Your task to perform on an android device: all mails in gmail Image 0: 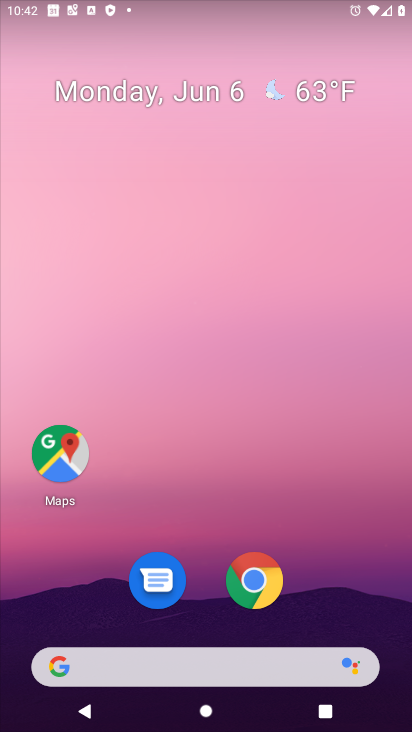
Step 0: drag from (397, 491) to (54, 70)
Your task to perform on an android device: all mails in gmail Image 1: 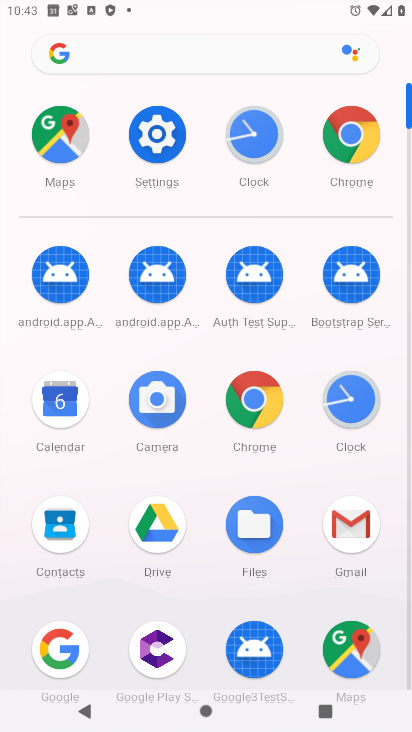
Step 1: click (372, 527)
Your task to perform on an android device: all mails in gmail Image 2: 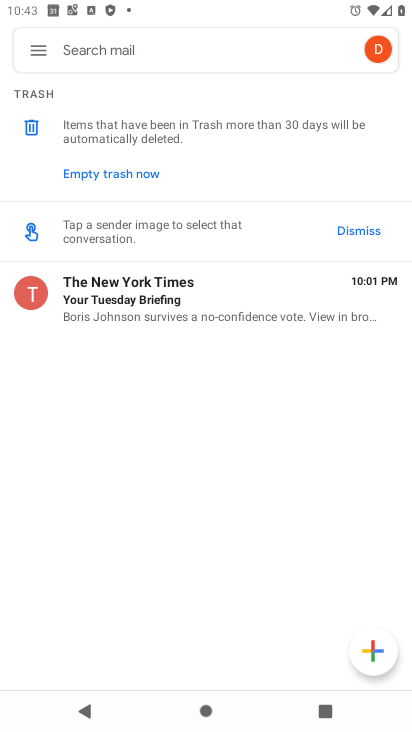
Step 2: click (22, 47)
Your task to perform on an android device: all mails in gmail Image 3: 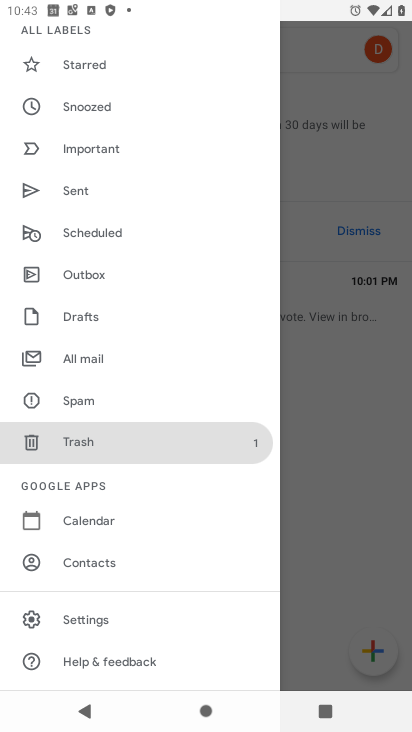
Step 3: click (80, 358)
Your task to perform on an android device: all mails in gmail Image 4: 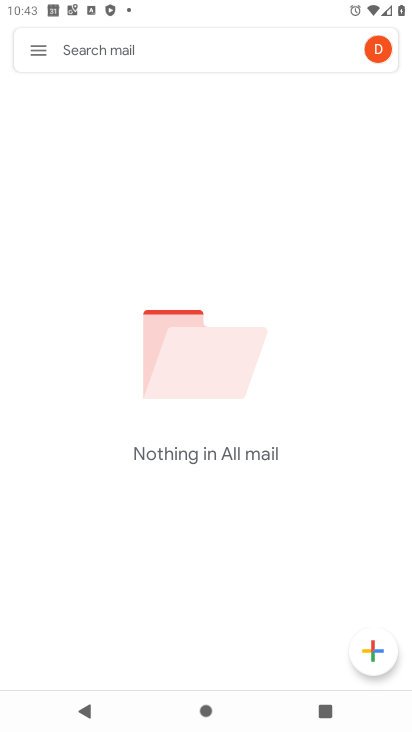
Step 4: task complete